Your task to perform on an android device: When is my next appointment? Image 0: 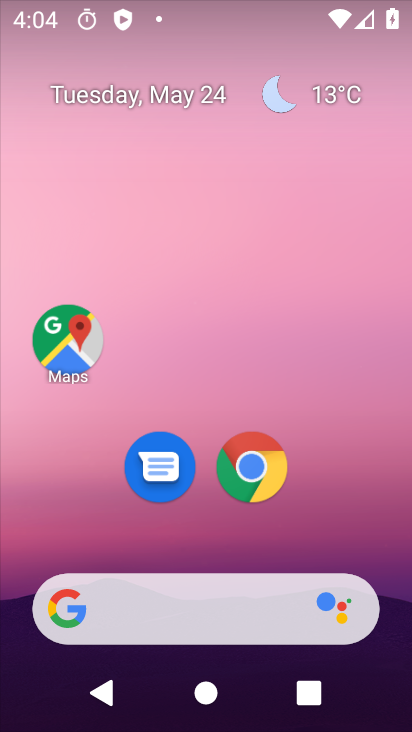
Step 0: drag from (348, 476) to (317, 148)
Your task to perform on an android device: When is my next appointment? Image 1: 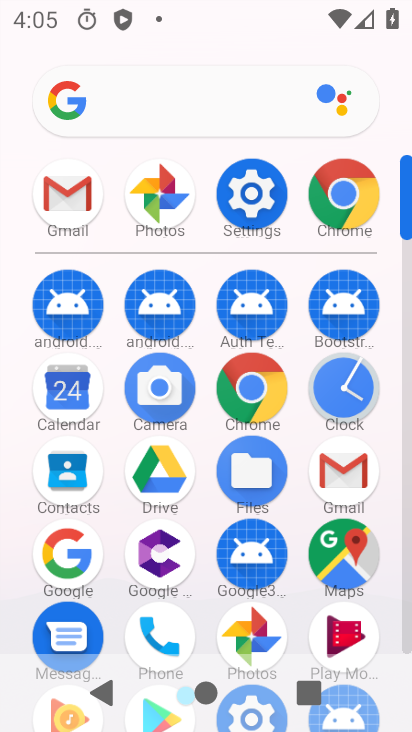
Step 1: click (76, 408)
Your task to perform on an android device: When is my next appointment? Image 2: 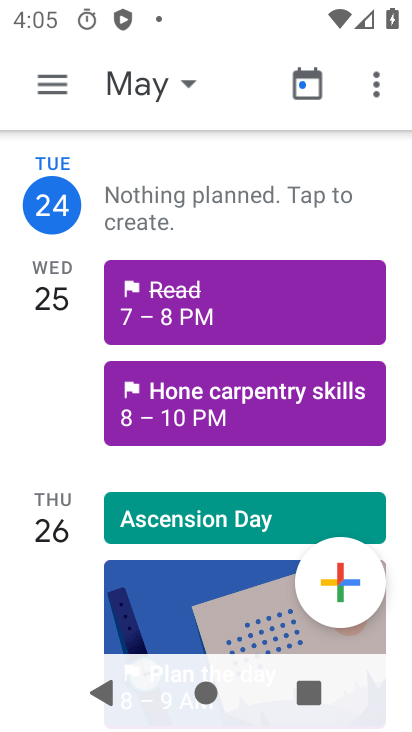
Step 2: task complete